Your task to perform on an android device: Open Reddit.com Image 0: 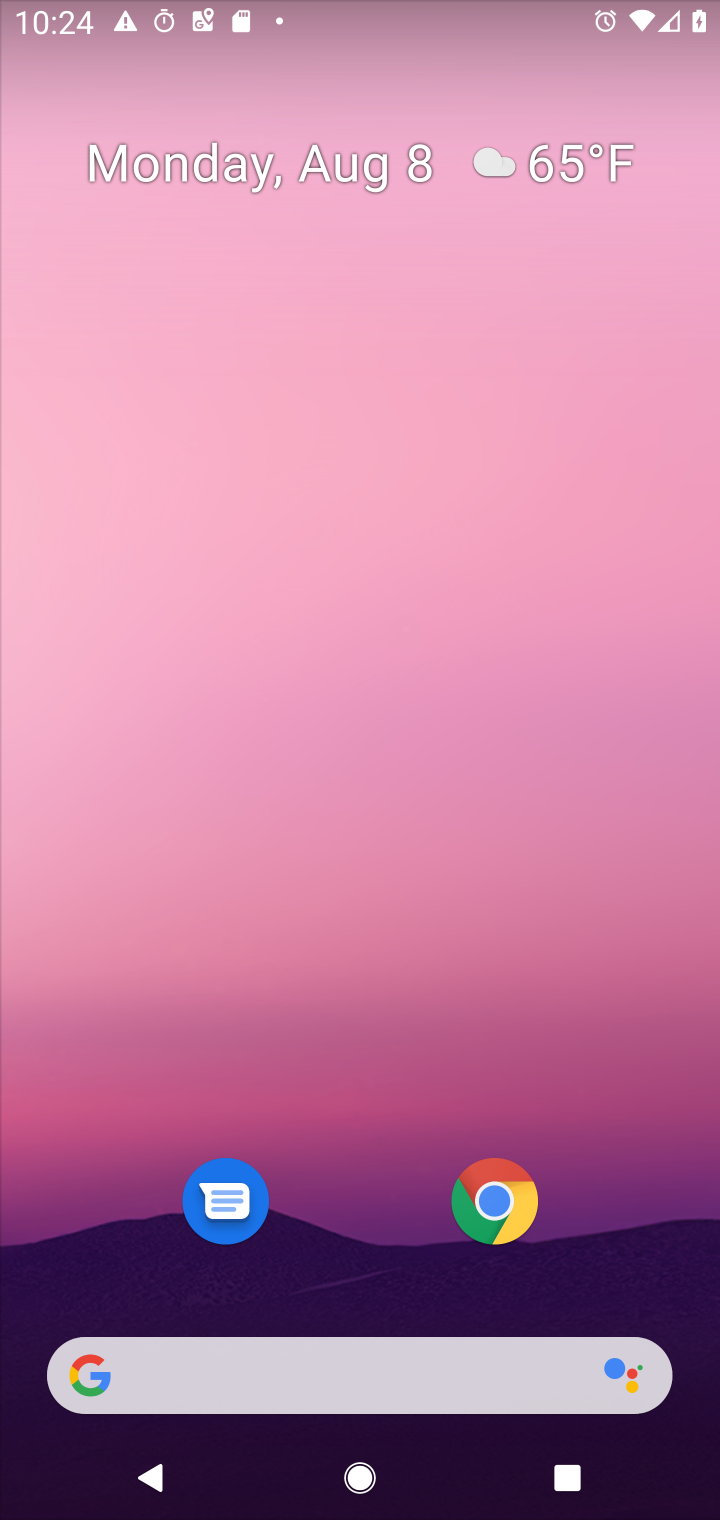
Step 0: press home button
Your task to perform on an android device: Open Reddit.com Image 1: 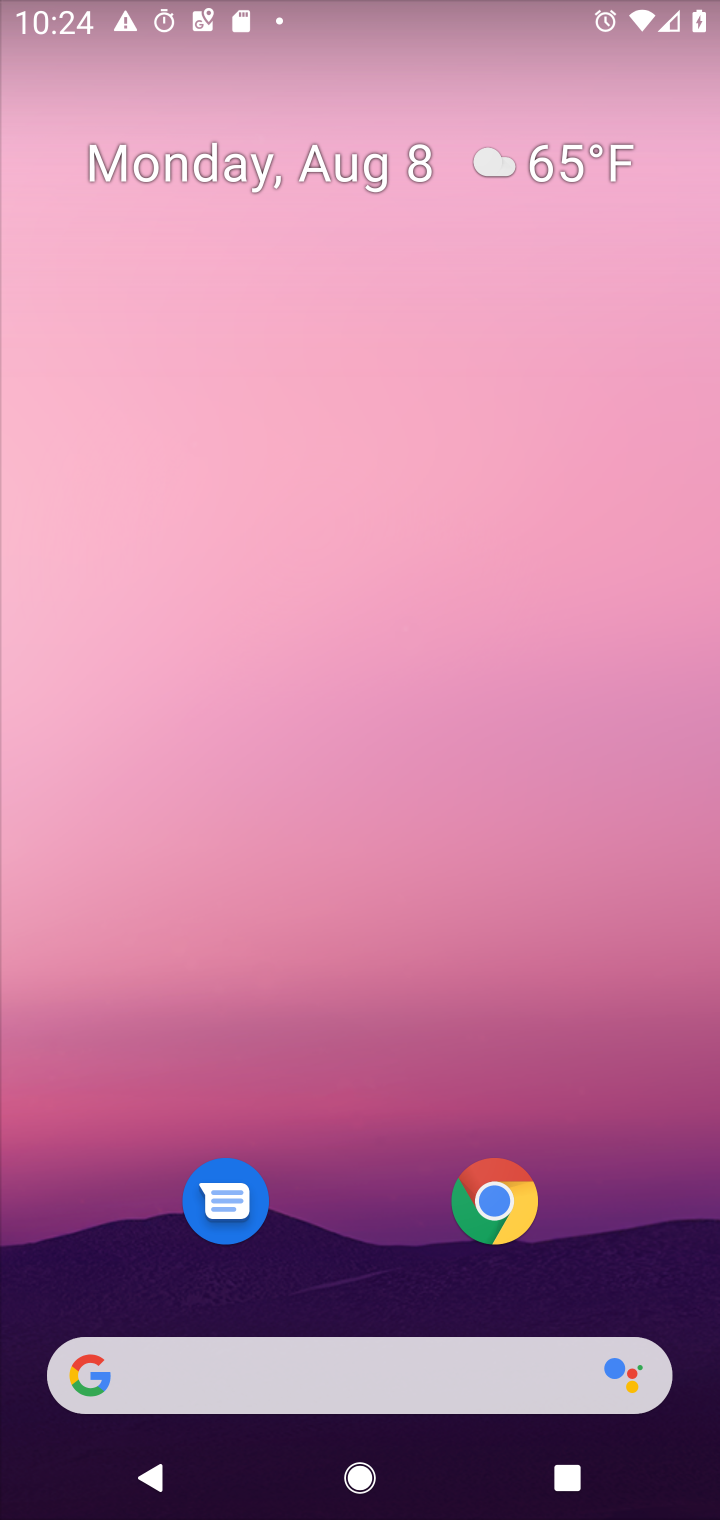
Step 1: drag from (599, 1155) to (585, 330)
Your task to perform on an android device: Open Reddit.com Image 2: 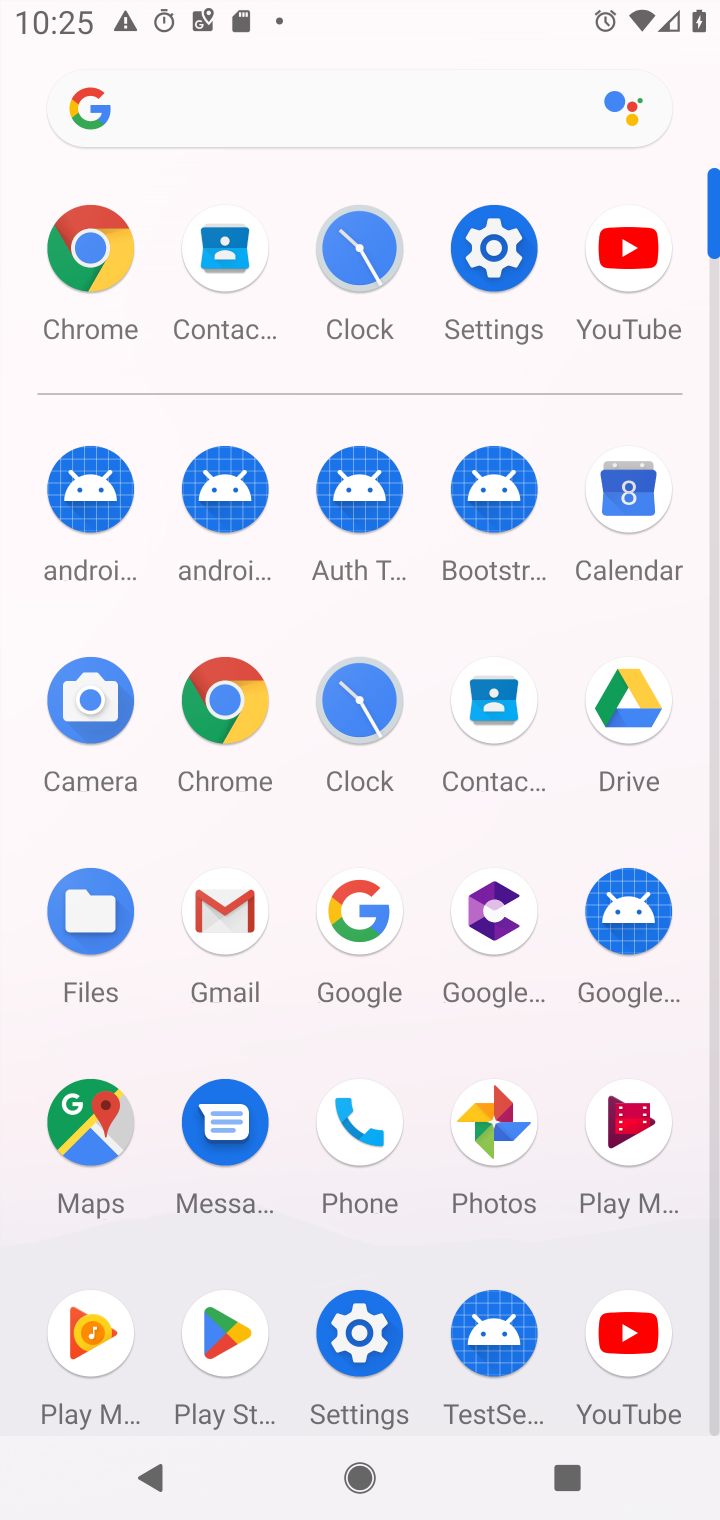
Step 2: click (216, 708)
Your task to perform on an android device: Open Reddit.com Image 3: 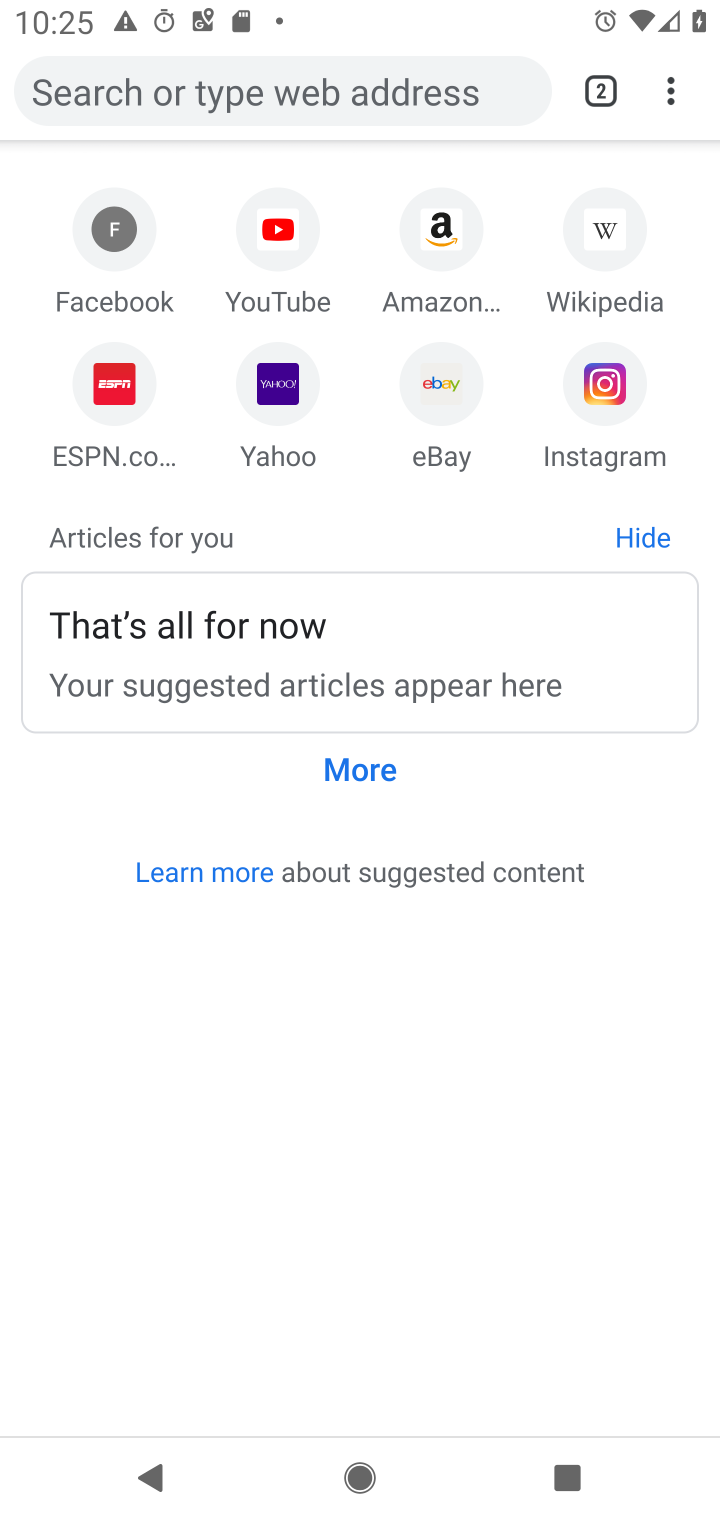
Step 3: click (446, 84)
Your task to perform on an android device: Open Reddit.com Image 4: 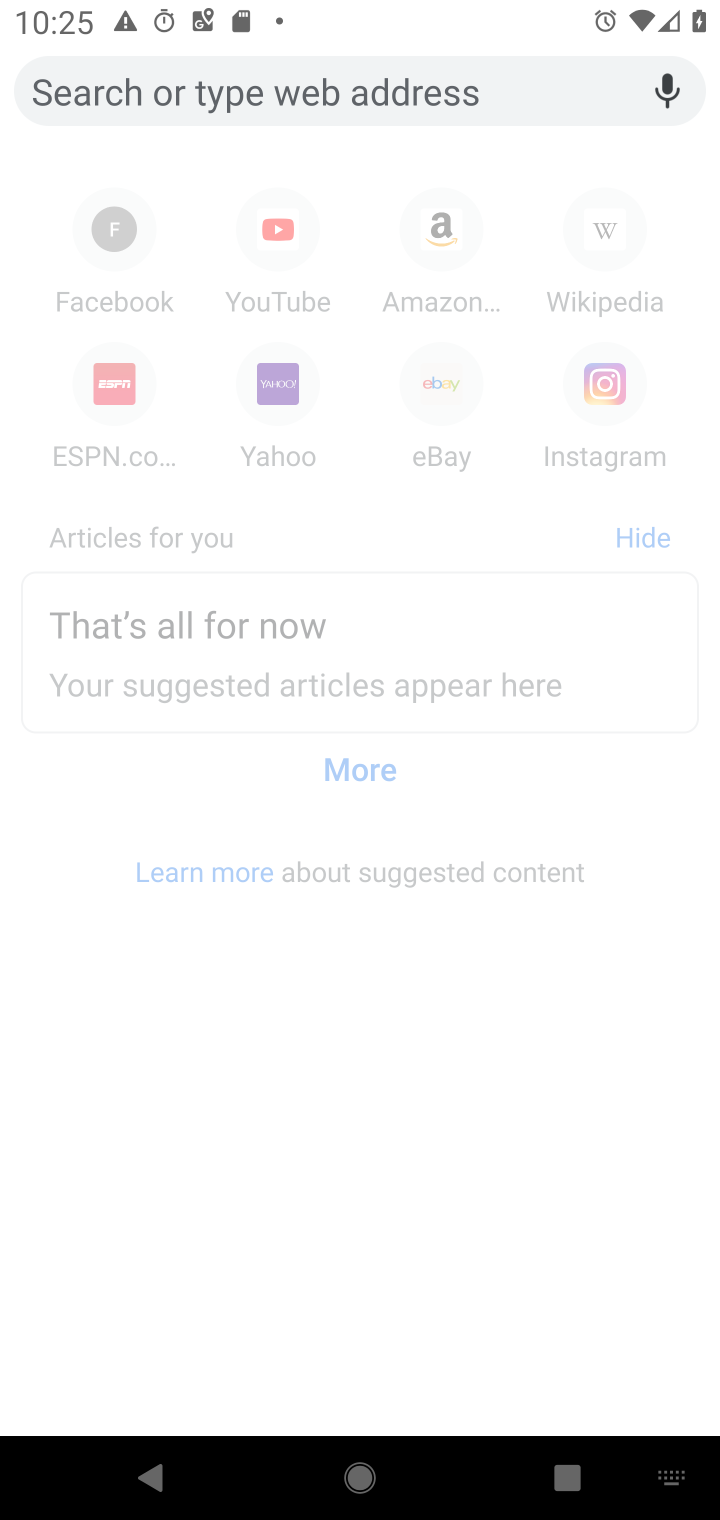
Step 4: type "reddit.com"
Your task to perform on an android device: Open Reddit.com Image 5: 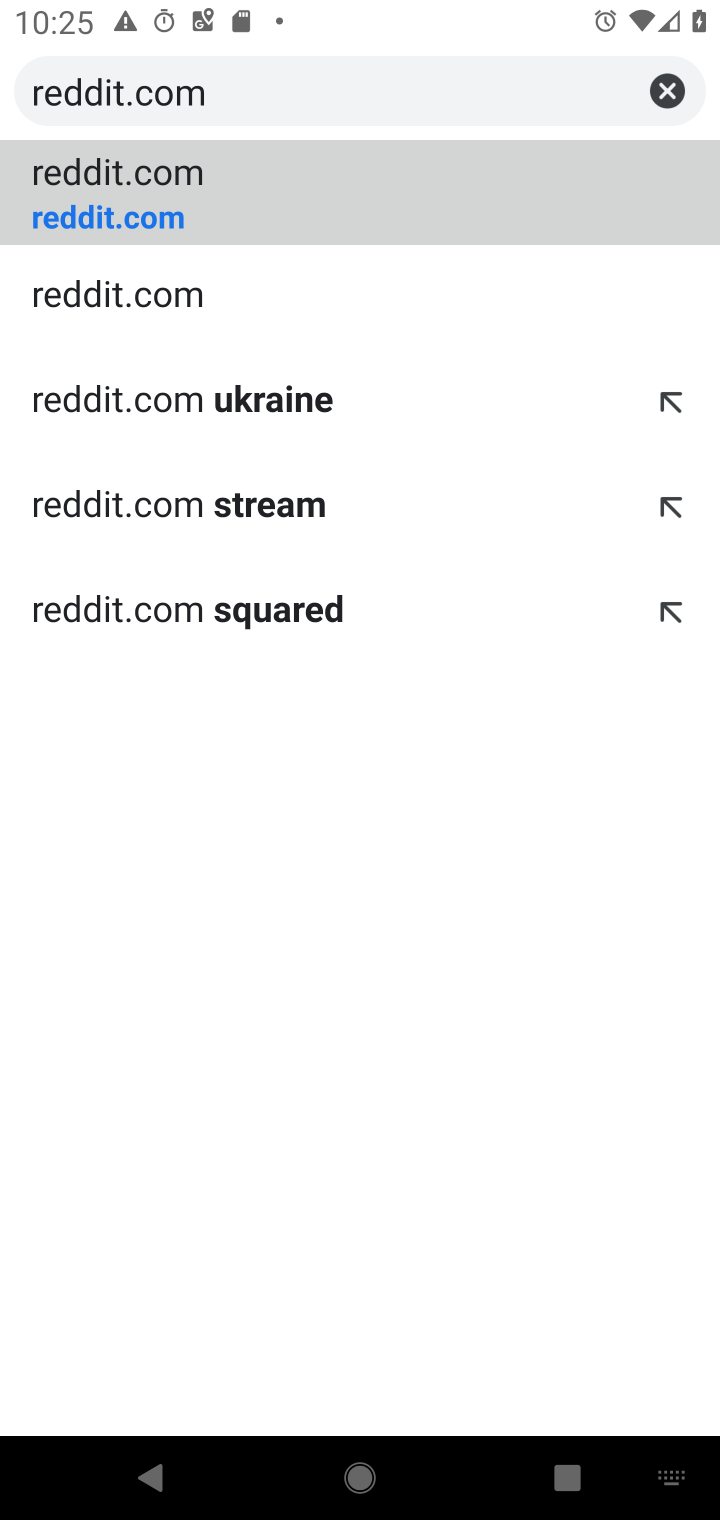
Step 5: click (204, 197)
Your task to perform on an android device: Open Reddit.com Image 6: 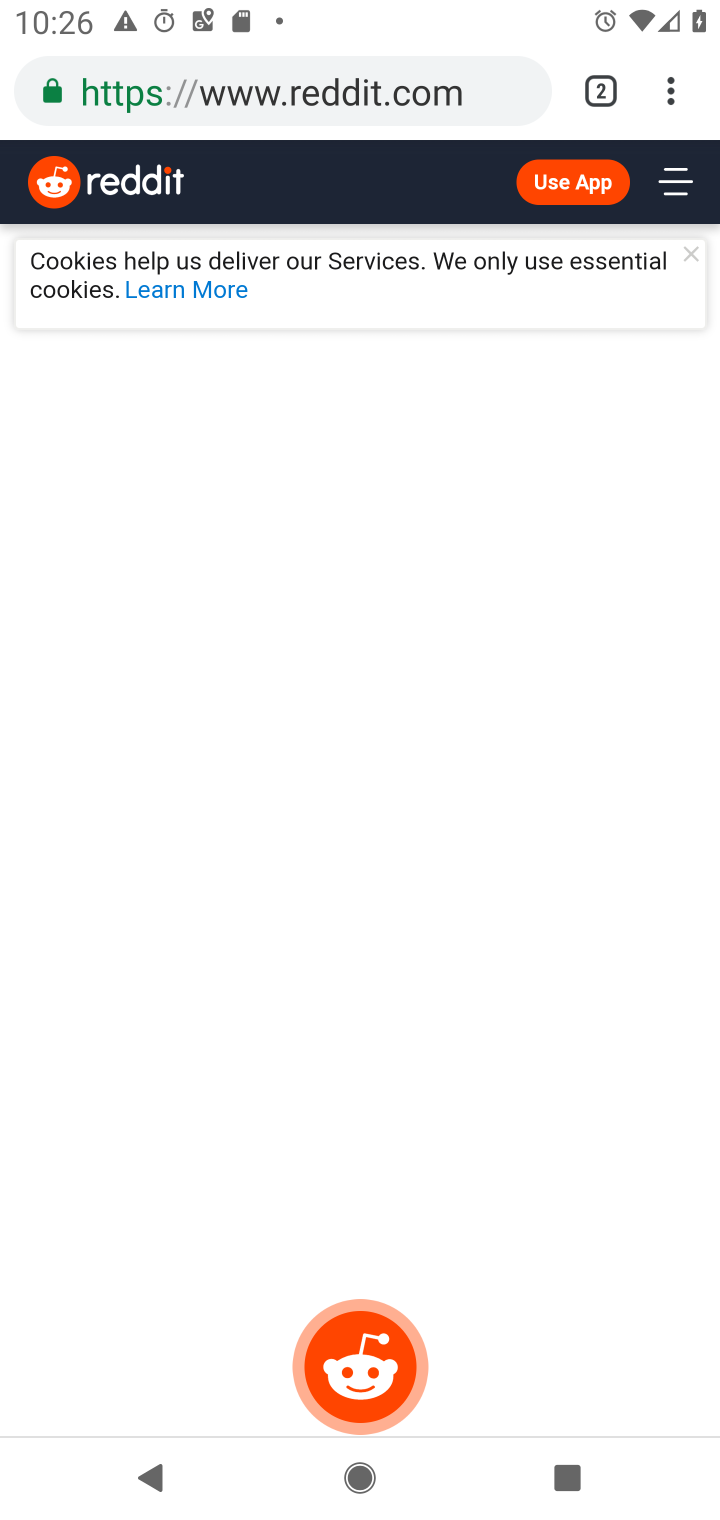
Step 6: task complete